Your task to perform on an android device: Go to settings Image 0: 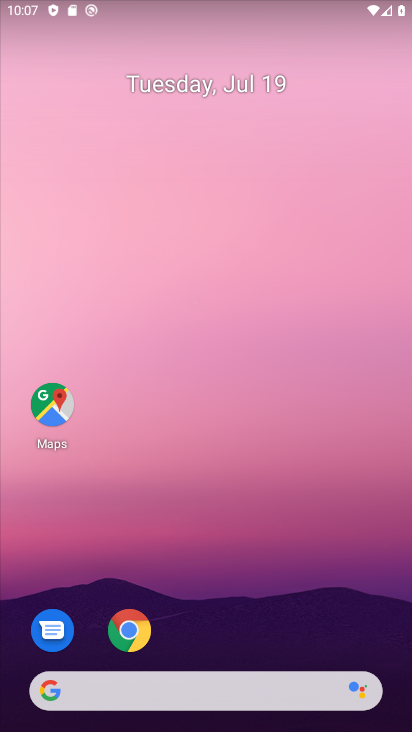
Step 0: press home button
Your task to perform on an android device: Go to settings Image 1: 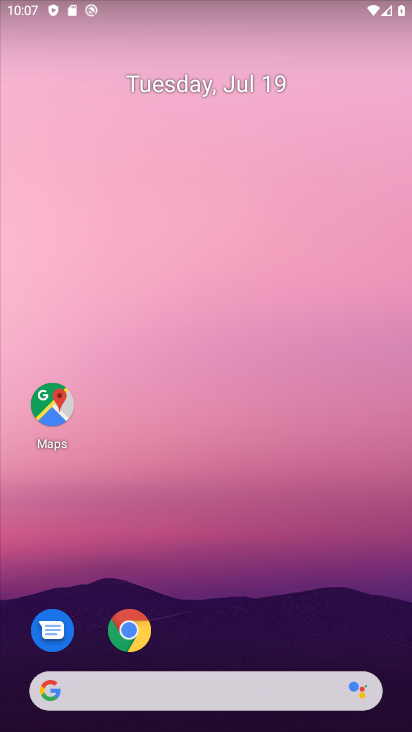
Step 1: drag from (229, 650) to (239, 100)
Your task to perform on an android device: Go to settings Image 2: 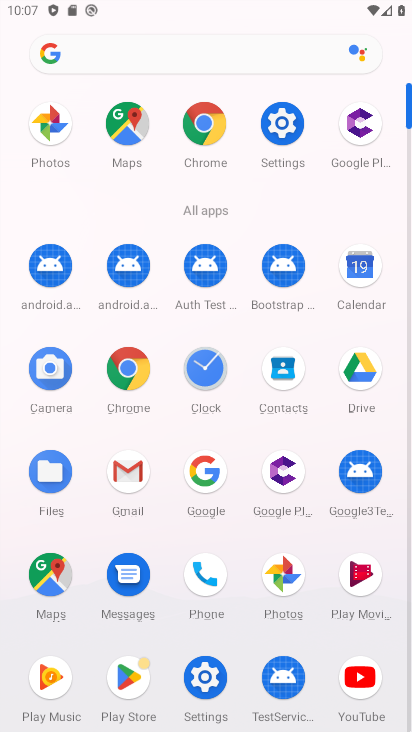
Step 2: click (285, 123)
Your task to perform on an android device: Go to settings Image 3: 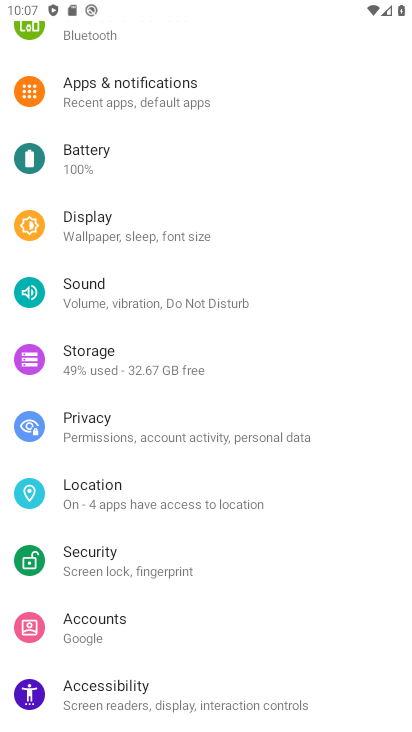
Step 3: task complete